Your task to perform on an android device: Open Yahoo.com Image 0: 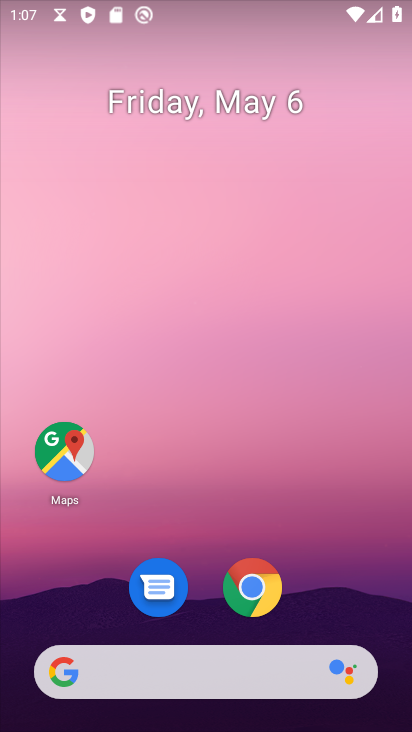
Step 0: drag from (203, 625) to (232, 81)
Your task to perform on an android device: Open Yahoo.com Image 1: 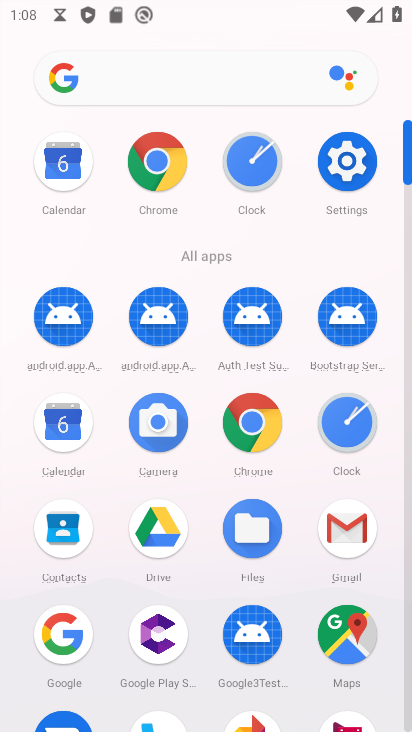
Step 1: click (249, 419)
Your task to perform on an android device: Open Yahoo.com Image 2: 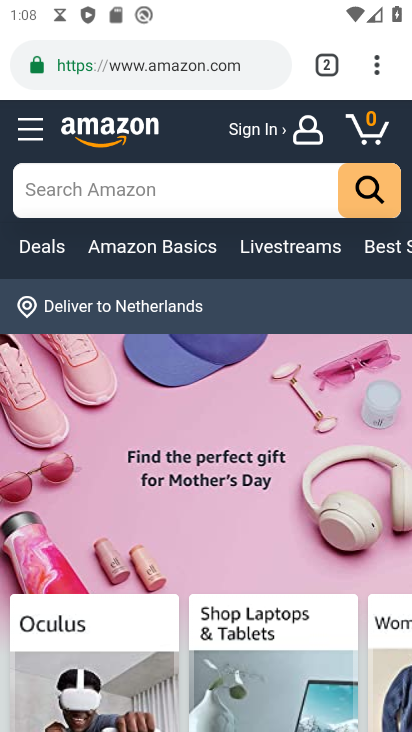
Step 2: click (331, 71)
Your task to perform on an android device: Open Yahoo.com Image 3: 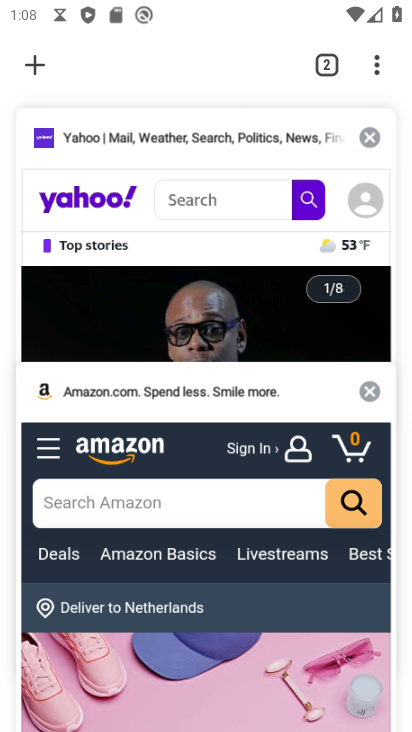
Step 3: click (172, 172)
Your task to perform on an android device: Open Yahoo.com Image 4: 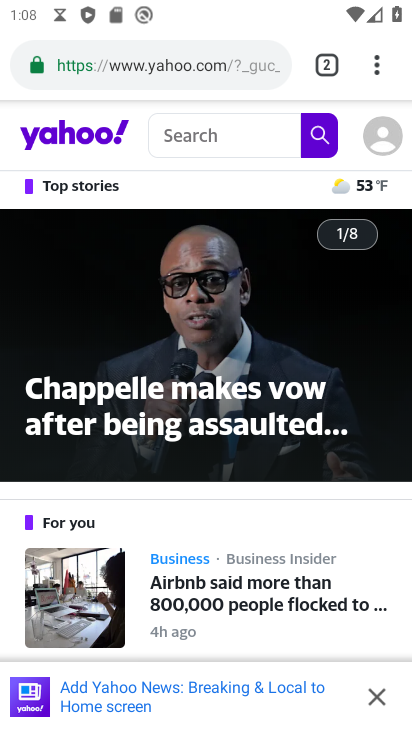
Step 4: task complete